Your task to perform on an android device: Search for acer nitro on newegg.com, select the first entry, and add it to the cart. Image 0: 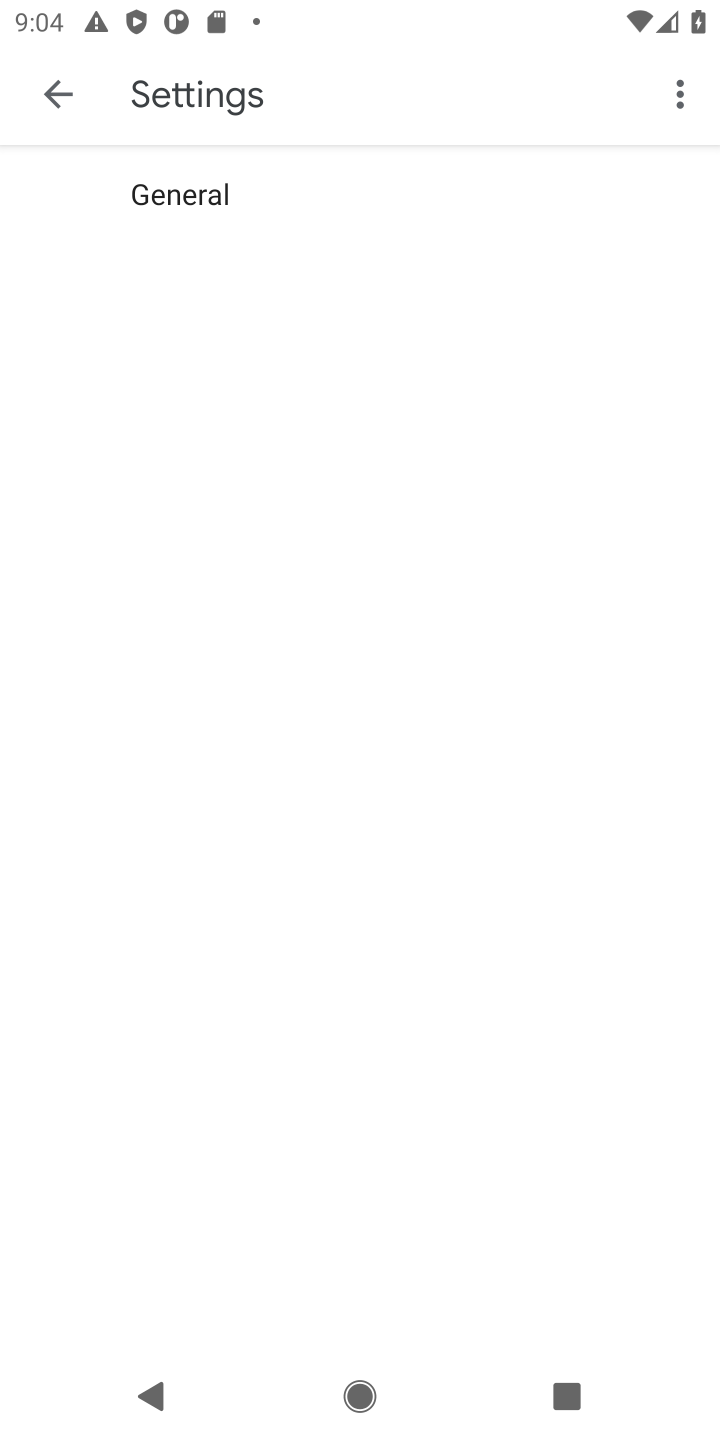
Step 0: press home button
Your task to perform on an android device: Search for acer nitro on newegg.com, select the first entry, and add it to the cart. Image 1: 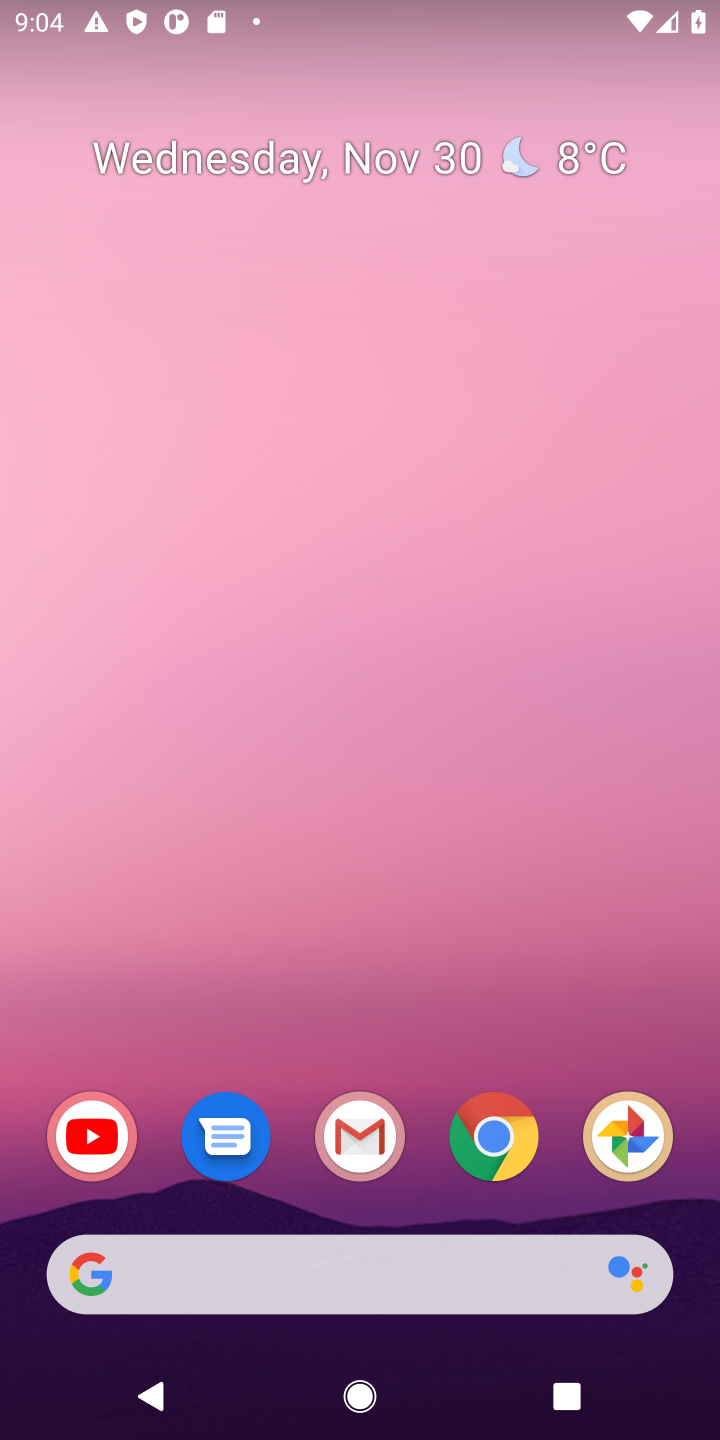
Step 1: click (498, 1144)
Your task to perform on an android device: Search for acer nitro on newegg.com, select the first entry, and add it to the cart. Image 2: 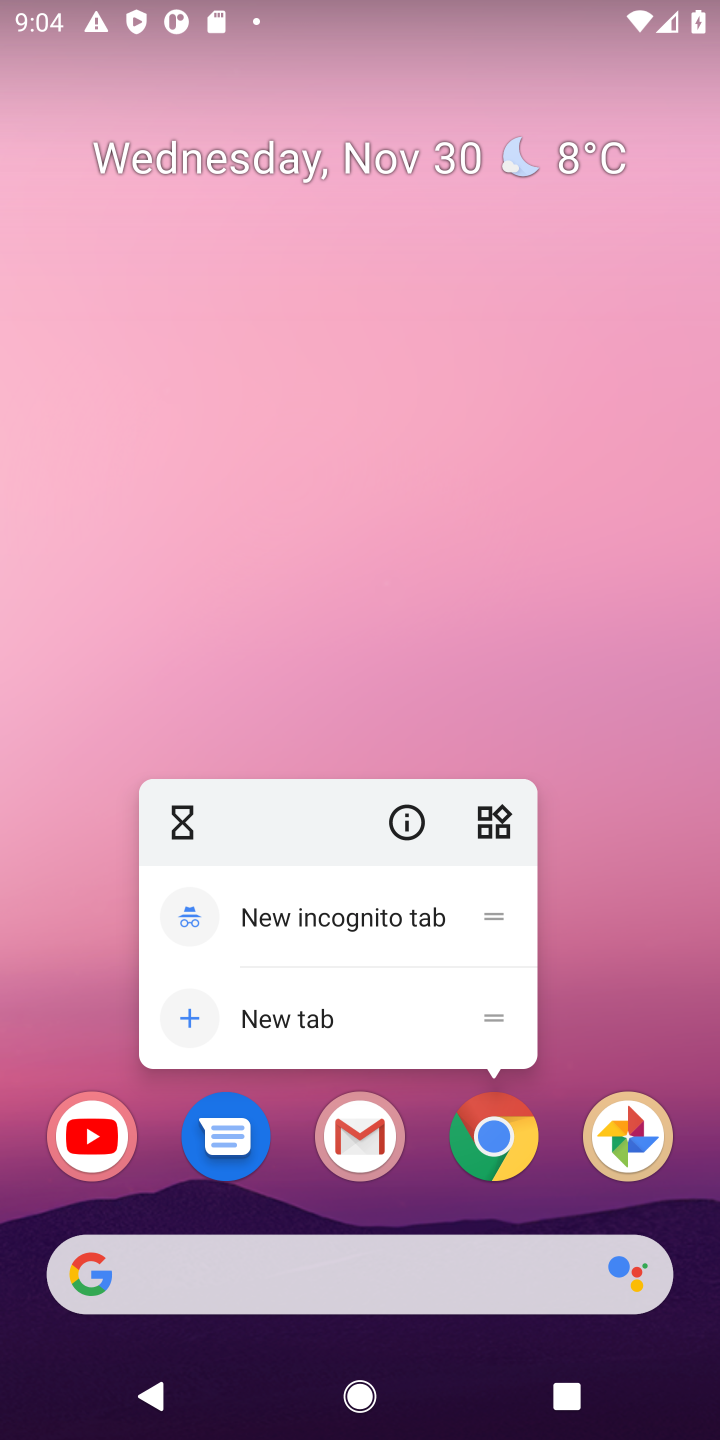
Step 2: click (498, 1144)
Your task to perform on an android device: Search for acer nitro on newegg.com, select the first entry, and add it to the cart. Image 3: 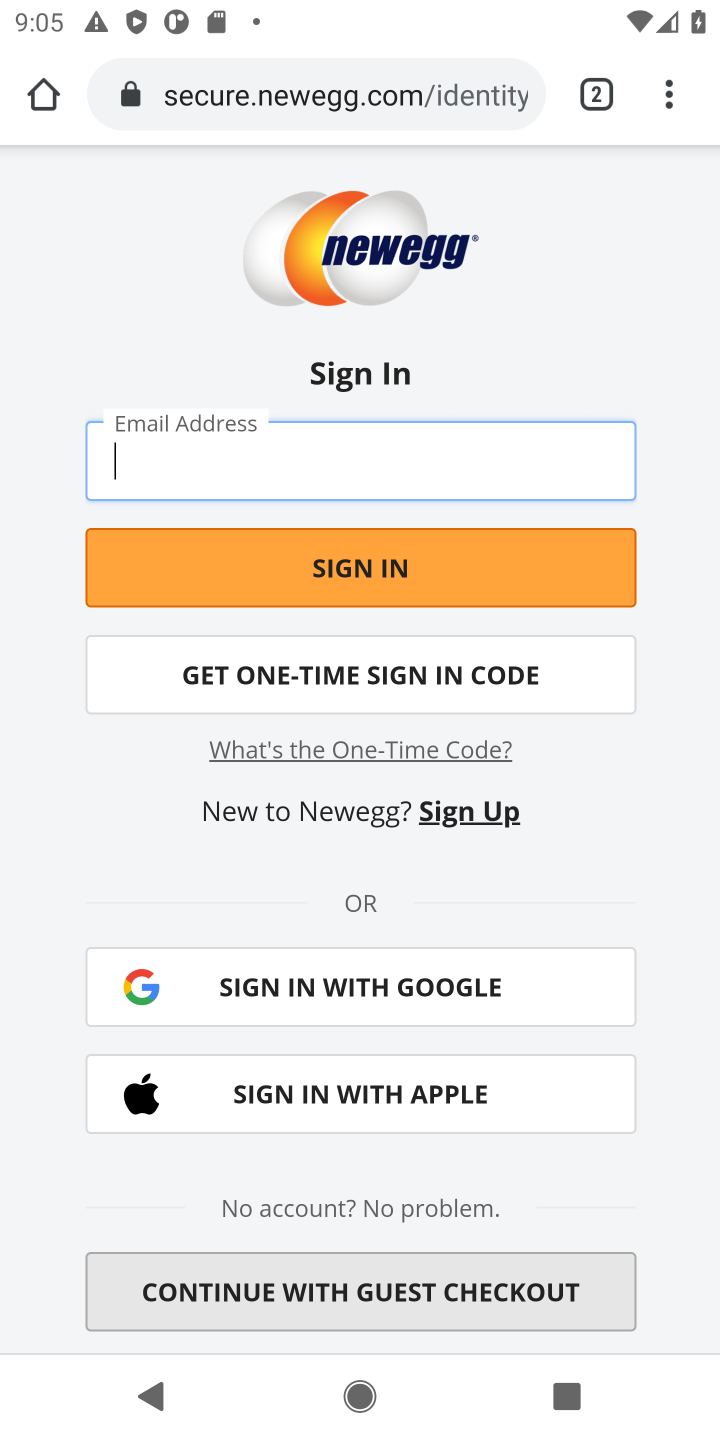
Step 3: press back button
Your task to perform on an android device: Search for acer nitro on newegg.com, select the first entry, and add it to the cart. Image 4: 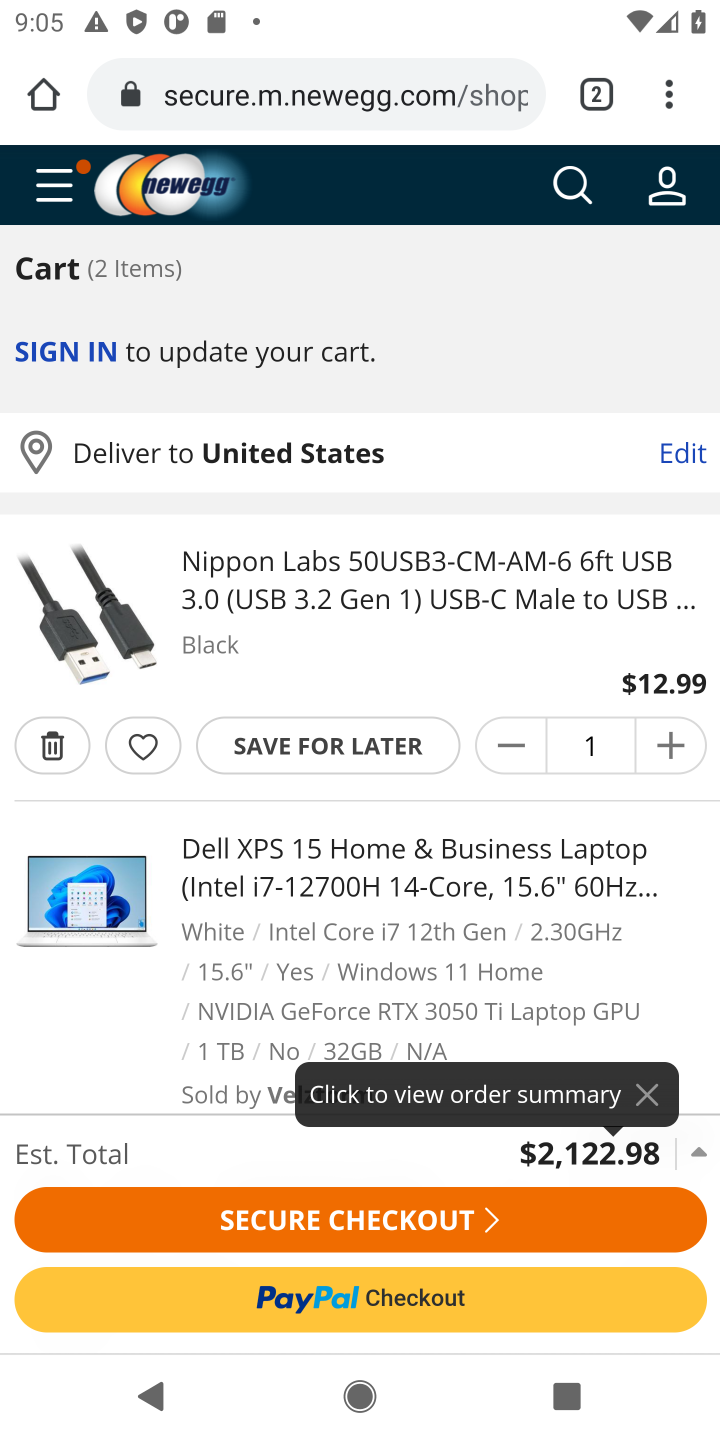
Step 4: click (567, 206)
Your task to perform on an android device: Search for acer nitro on newegg.com, select the first entry, and add it to the cart. Image 5: 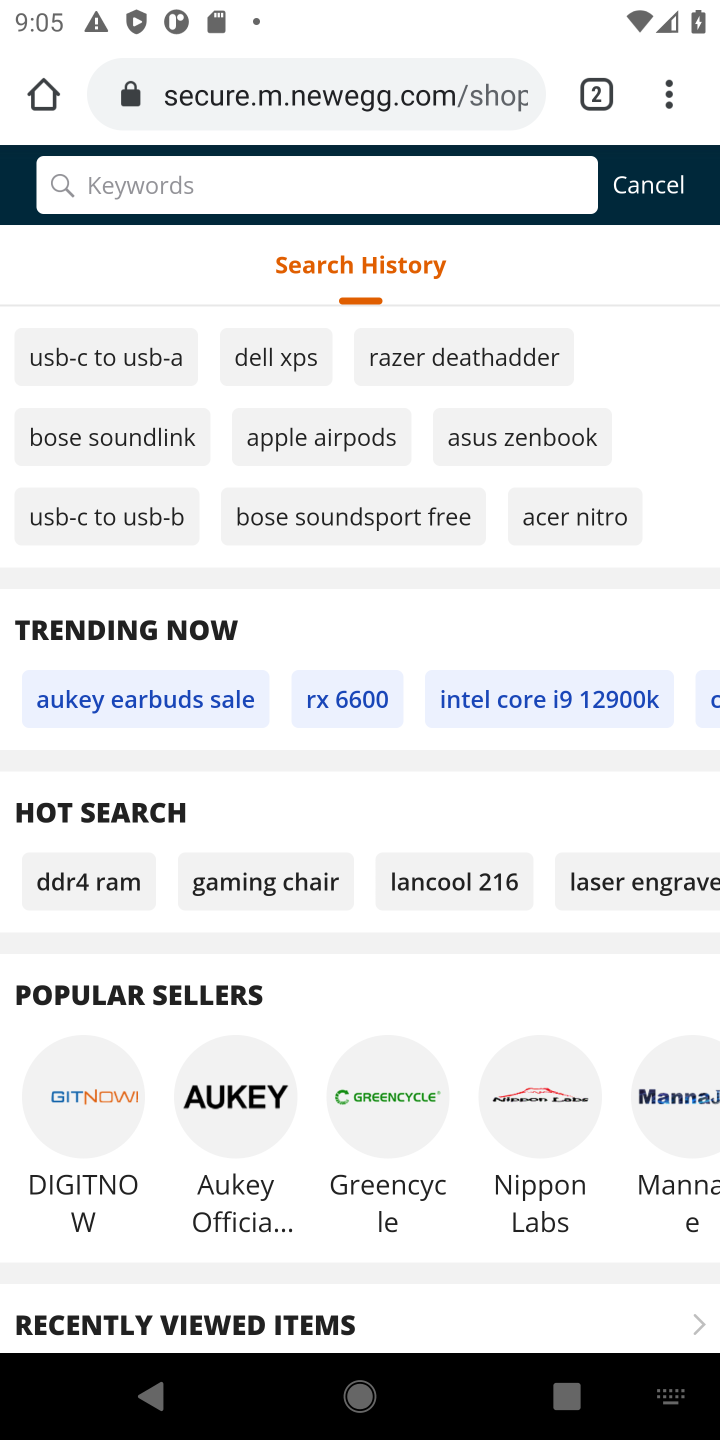
Step 5: type "acer nitro"
Your task to perform on an android device: Search for acer nitro on newegg.com, select the first entry, and add it to the cart. Image 6: 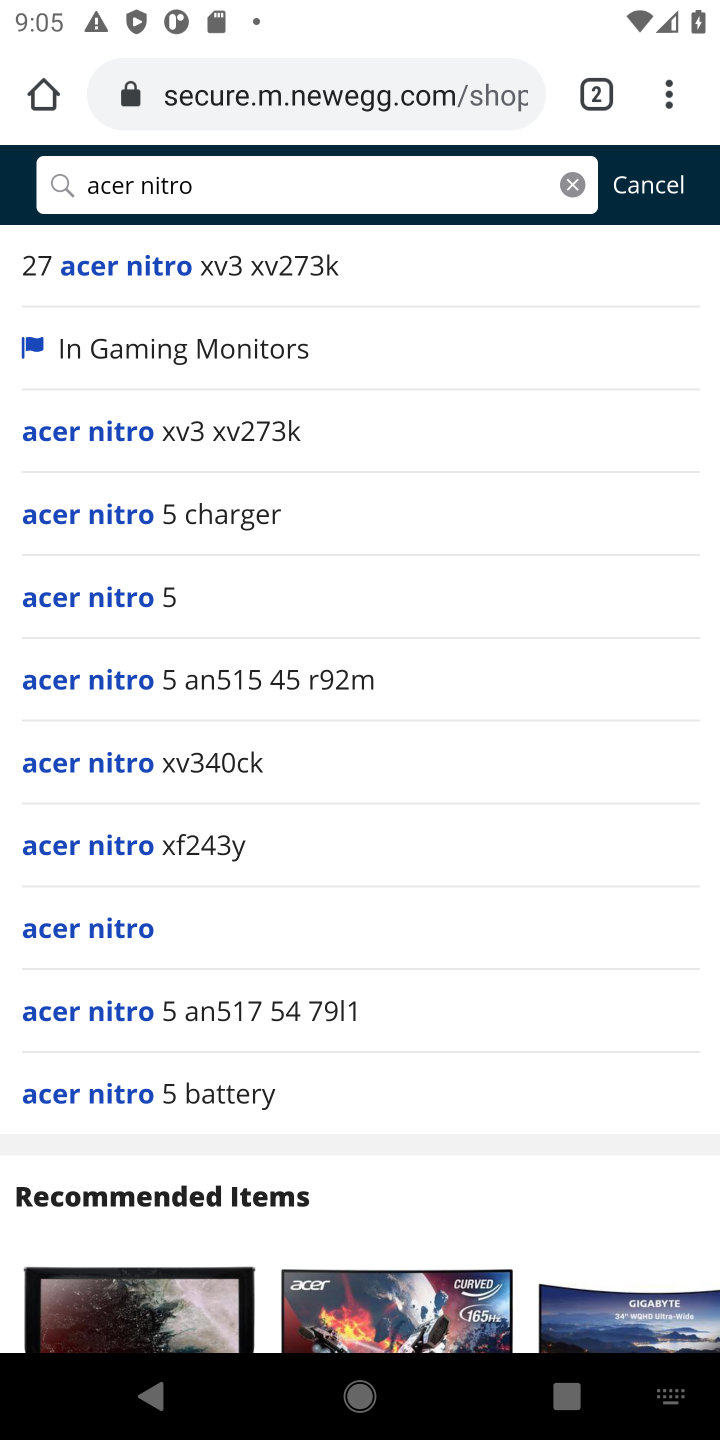
Step 6: click (72, 928)
Your task to perform on an android device: Search for acer nitro on newegg.com, select the first entry, and add it to the cart. Image 7: 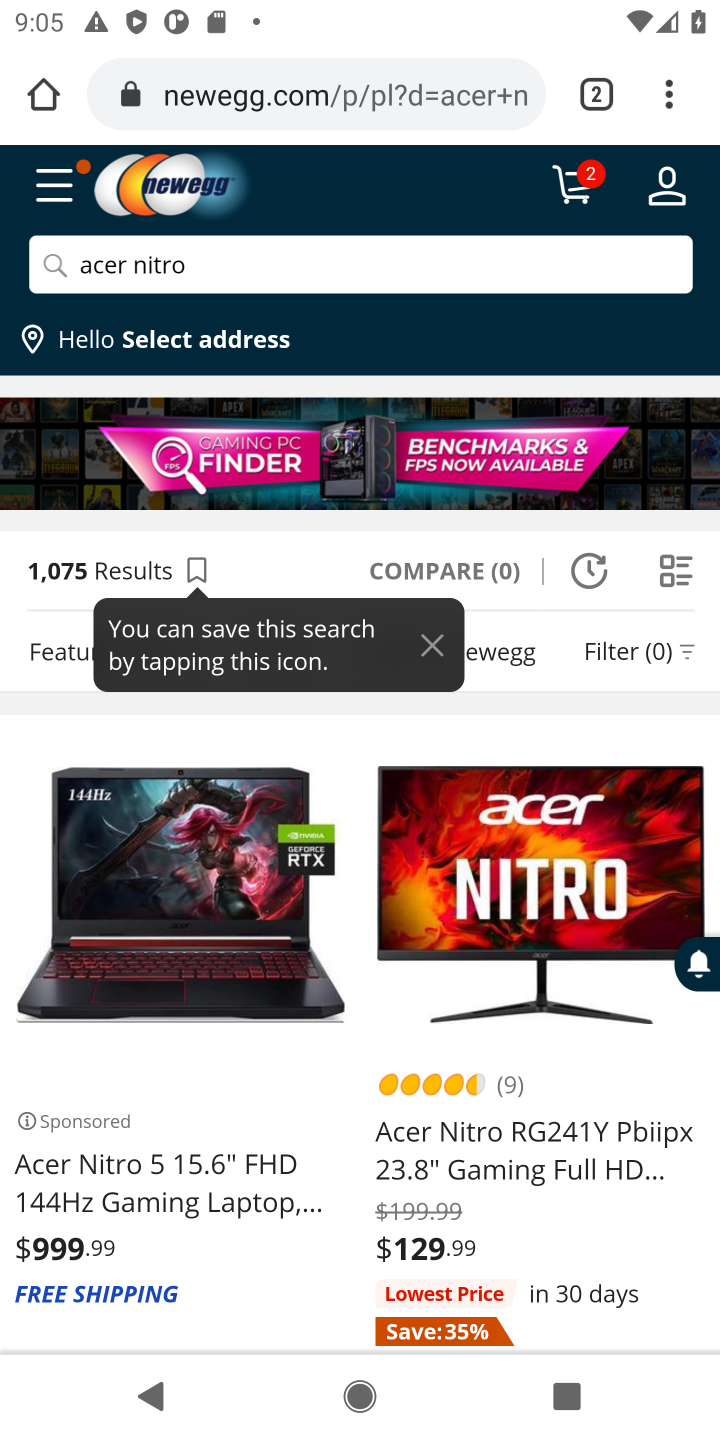
Step 7: click (176, 942)
Your task to perform on an android device: Search for acer nitro on newegg.com, select the first entry, and add it to the cart. Image 8: 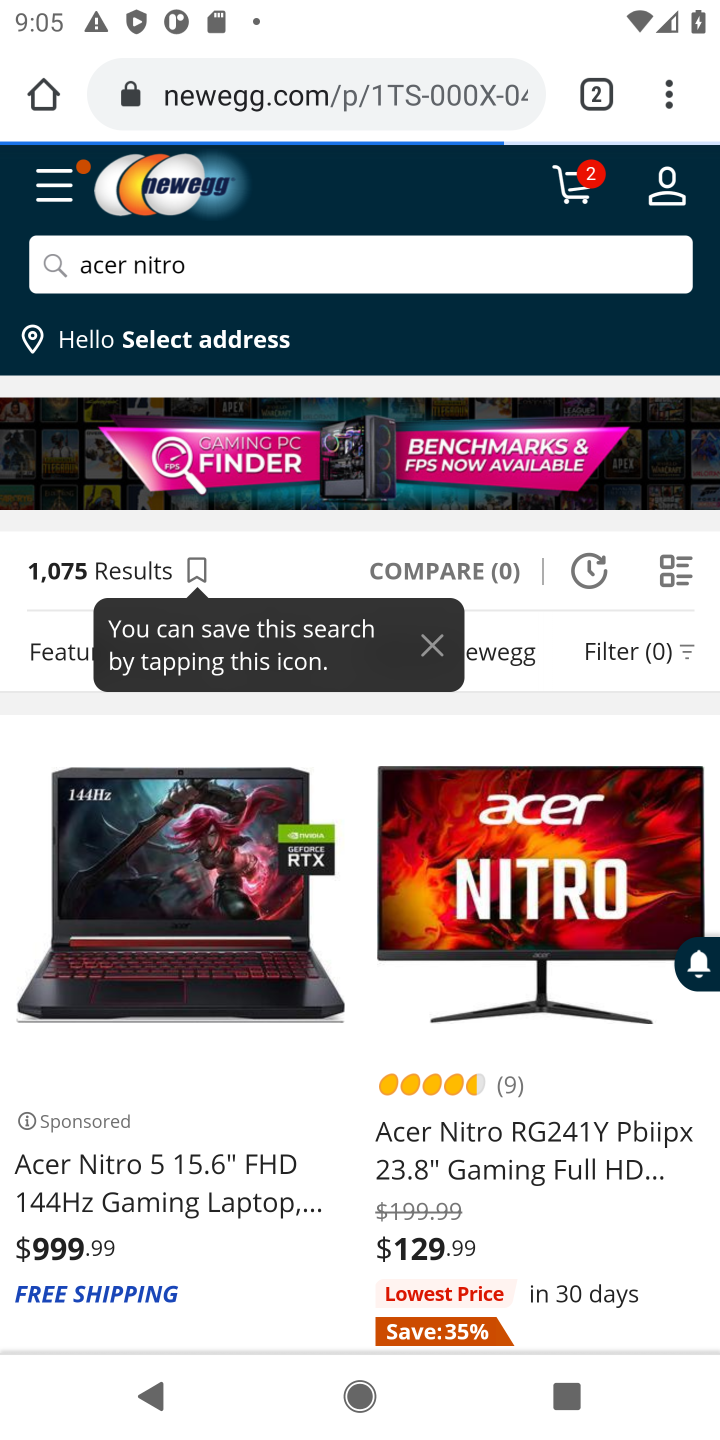
Step 8: click (131, 1173)
Your task to perform on an android device: Search for acer nitro on newegg.com, select the first entry, and add it to the cart. Image 9: 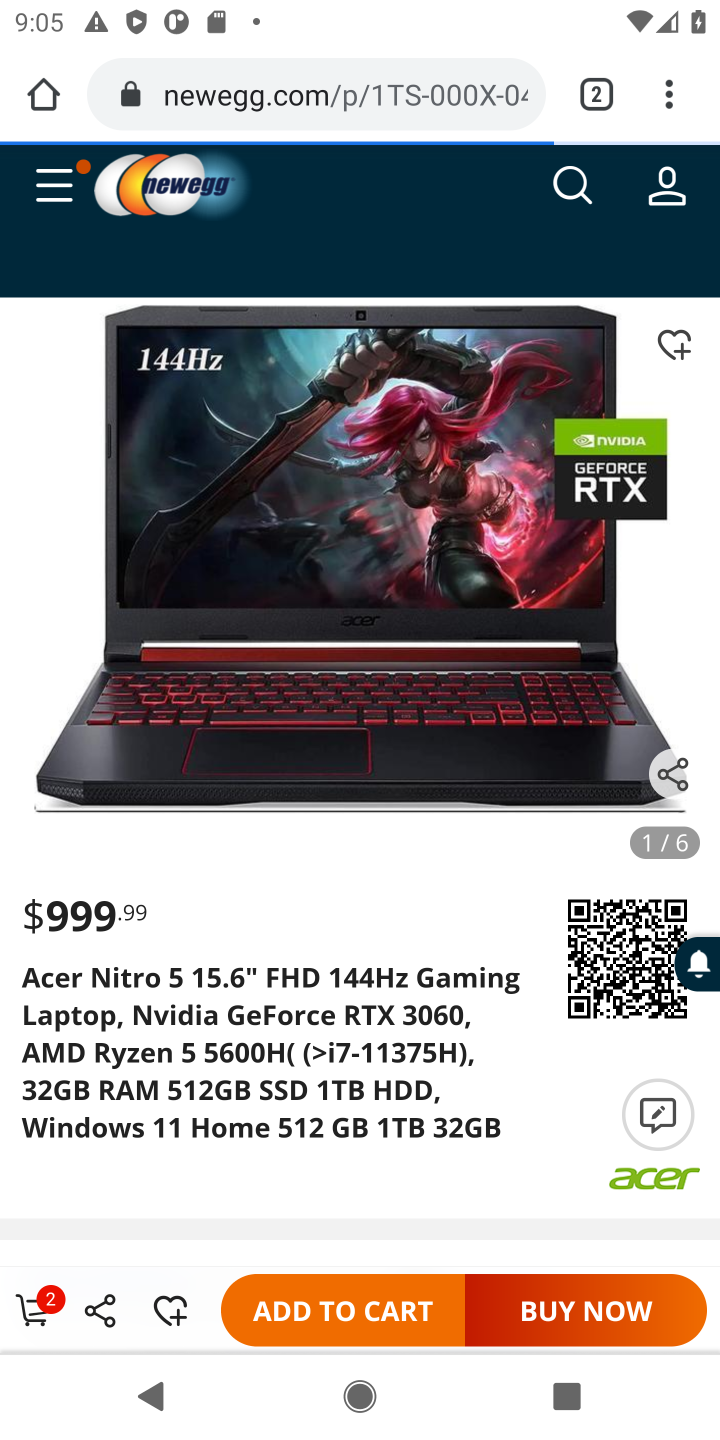
Step 9: click (291, 1308)
Your task to perform on an android device: Search for acer nitro on newegg.com, select the first entry, and add it to the cart. Image 10: 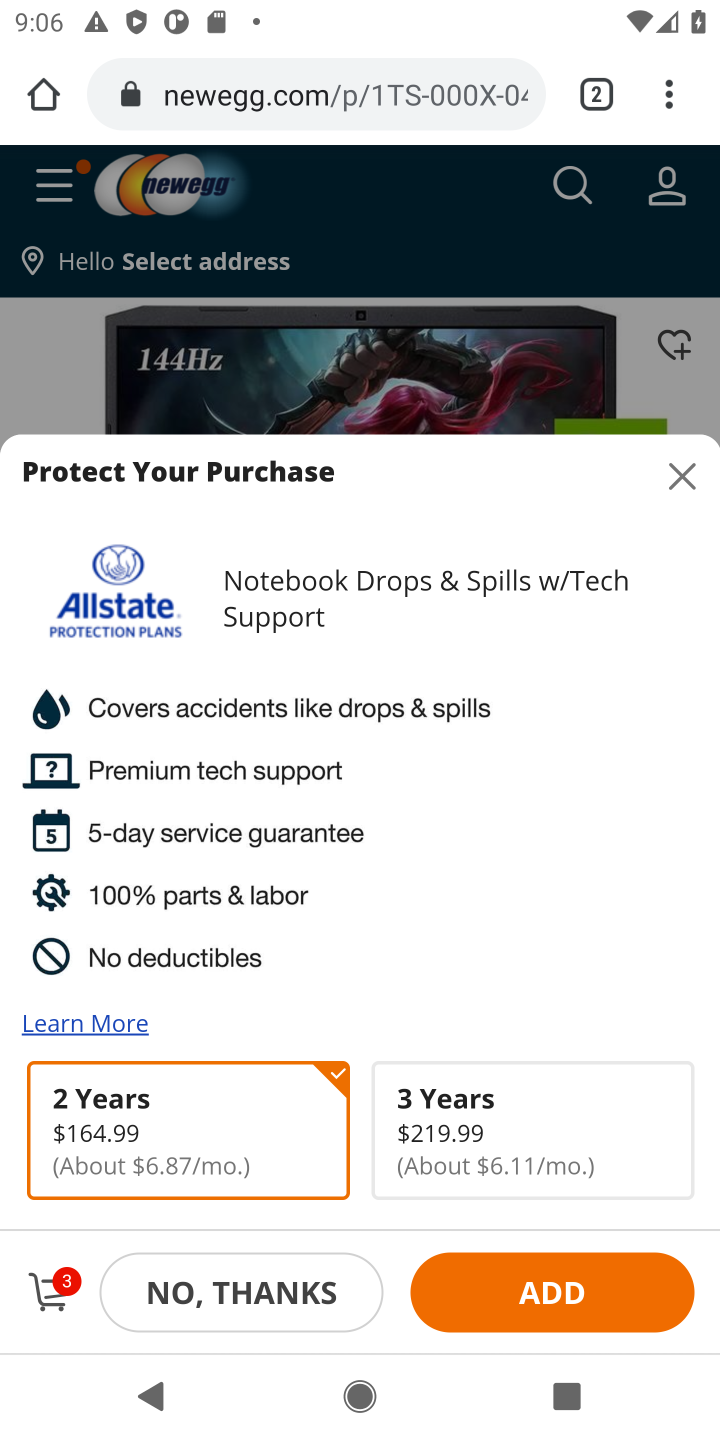
Step 10: task complete